Your task to perform on an android device: open device folders in google photos Image 0: 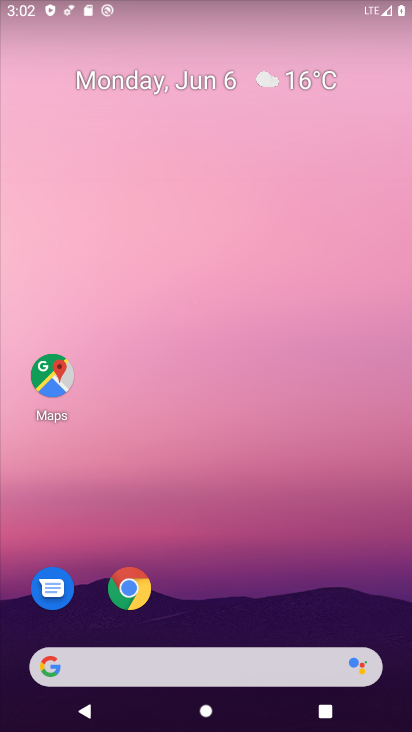
Step 0: drag from (258, 427) to (263, 162)
Your task to perform on an android device: open device folders in google photos Image 1: 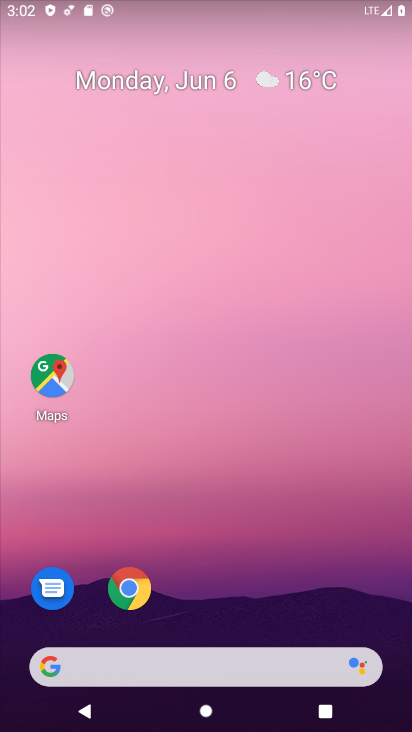
Step 1: drag from (223, 539) to (382, 562)
Your task to perform on an android device: open device folders in google photos Image 2: 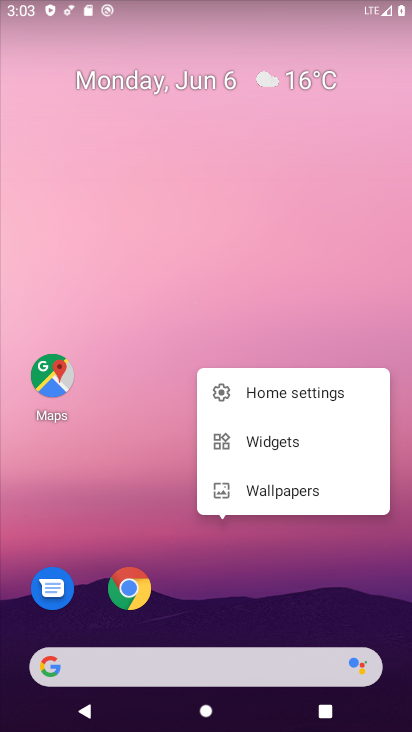
Step 2: drag from (183, 649) to (114, 153)
Your task to perform on an android device: open device folders in google photos Image 3: 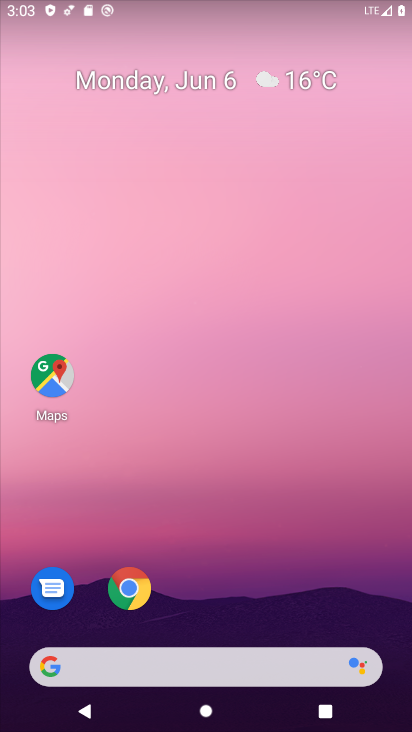
Step 3: drag from (207, 644) to (169, 44)
Your task to perform on an android device: open device folders in google photos Image 4: 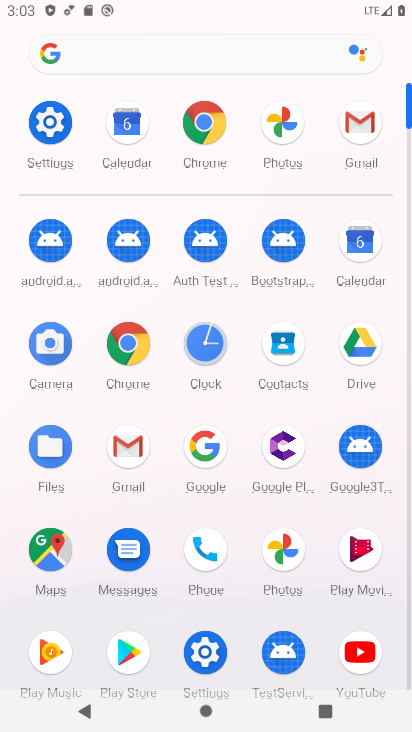
Step 4: click (282, 552)
Your task to perform on an android device: open device folders in google photos Image 5: 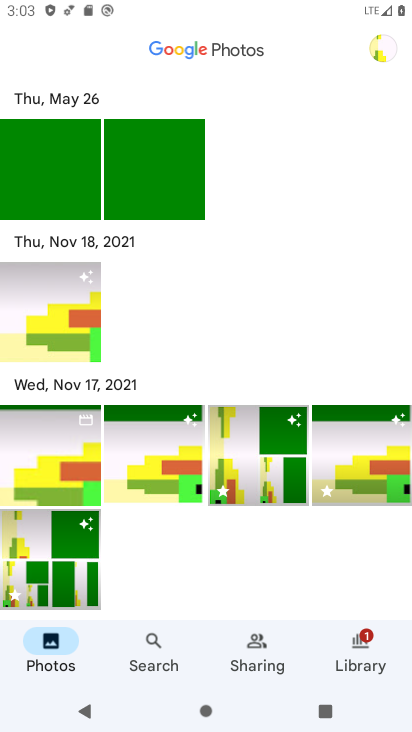
Step 5: click (351, 661)
Your task to perform on an android device: open device folders in google photos Image 6: 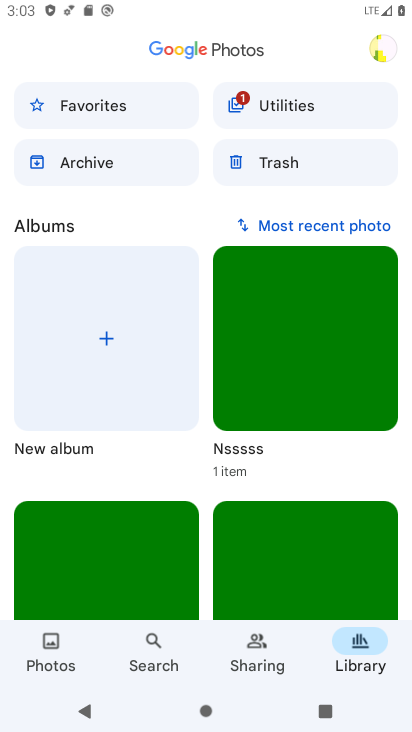
Step 6: task complete